Your task to perform on an android device: turn on data saver in the chrome app Image 0: 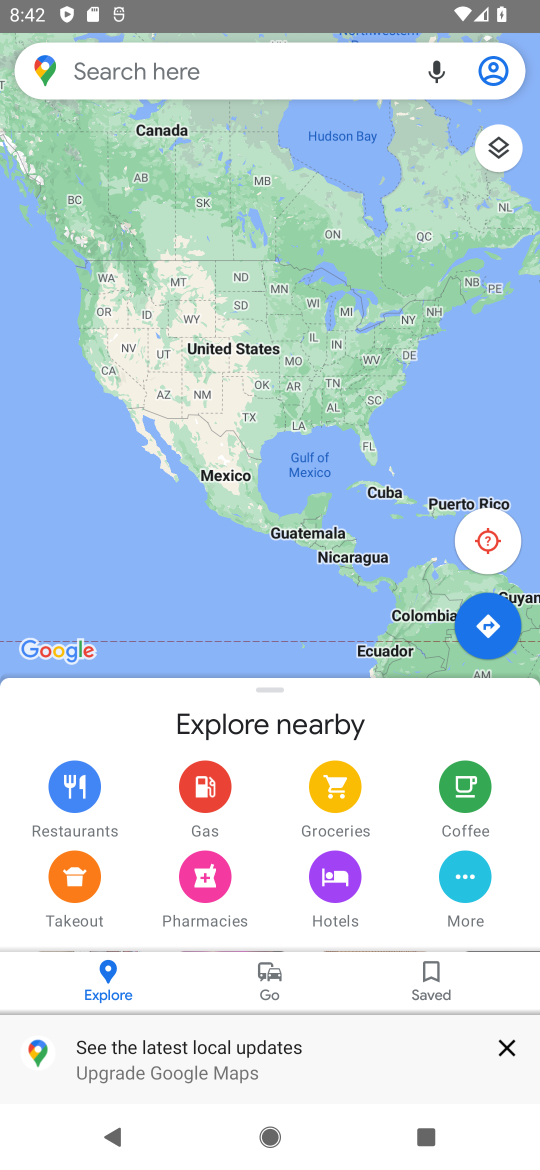
Step 0: press back button
Your task to perform on an android device: turn on data saver in the chrome app Image 1: 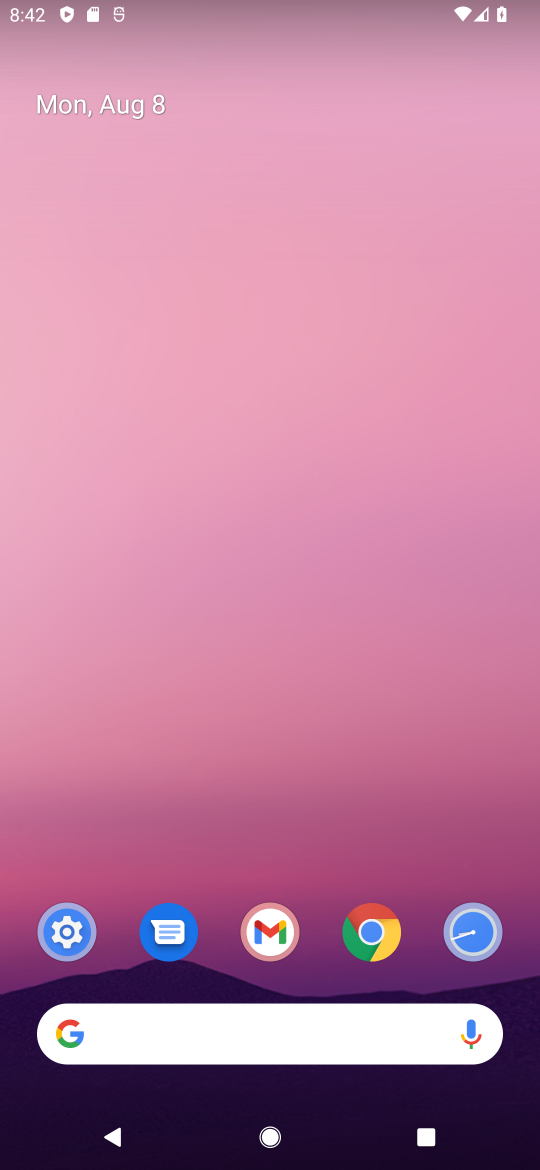
Step 1: click (379, 930)
Your task to perform on an android device: turn on data saver in the chrome app Image 2: 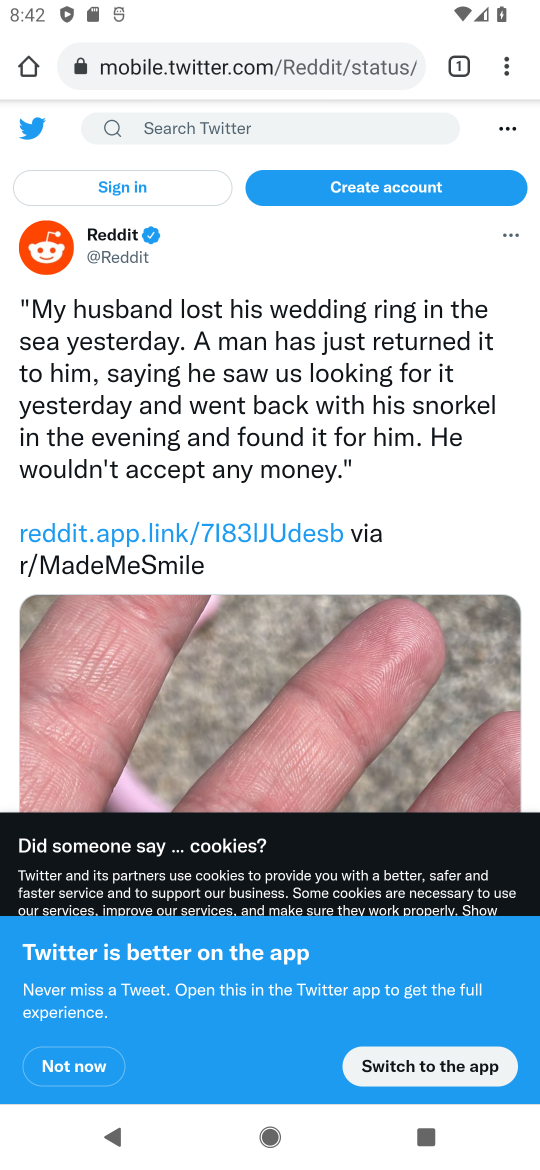
Step 2: drag from (501, 64) to (345, 876)
Your task to perform on an android device: turn on data saver in the chrome app Image 3: 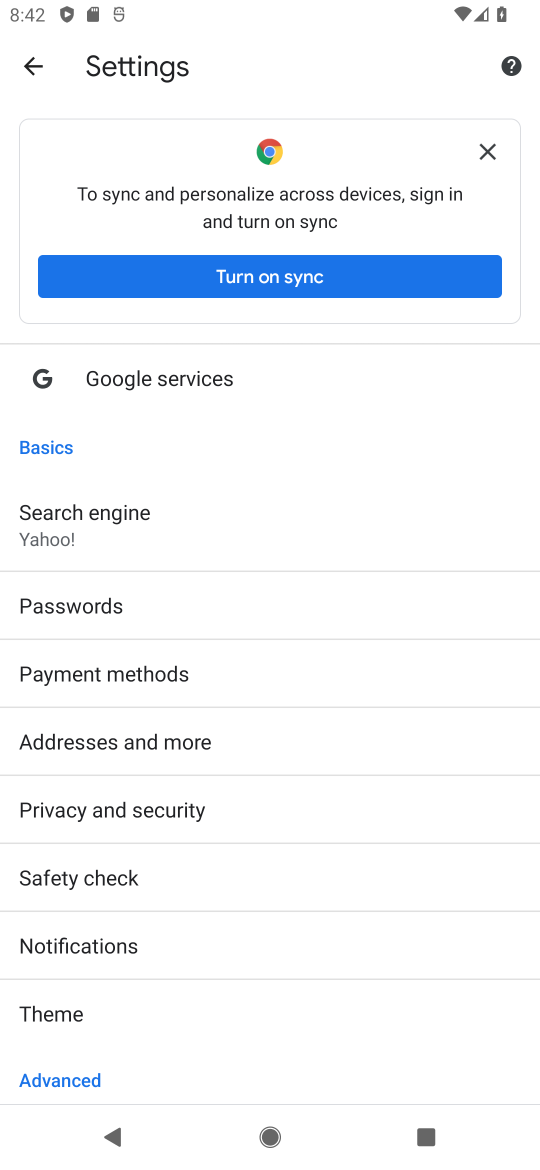
Step 3: drag from (285, 1011) to (349, 192)
Your task to perform on an android device: turn on data saver in the chrome app Image 4: 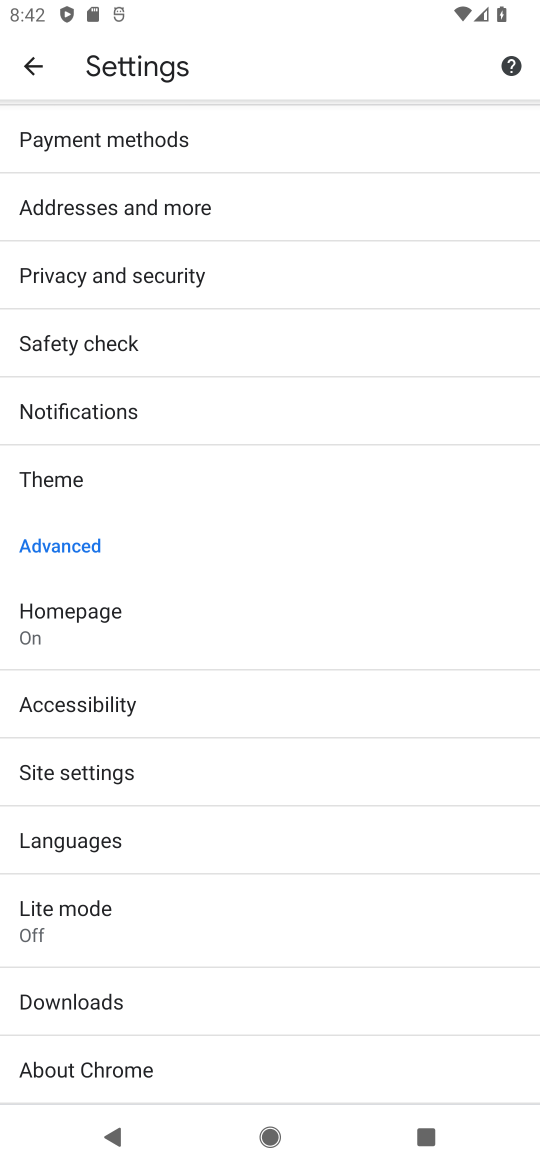
Step 4: click (84, 911)
Your task to perform on an android device: turn on data saver in the chrome app Image 5: 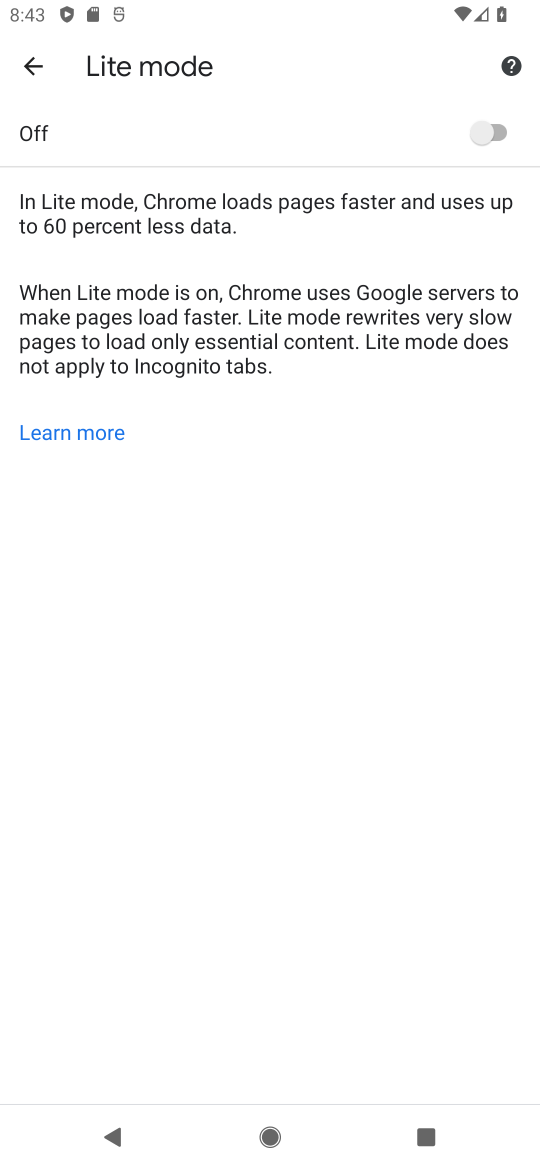
Step 5: click (497, 138)
Your task to perform on an android device: turn on data saver in the chrome app Image 6: 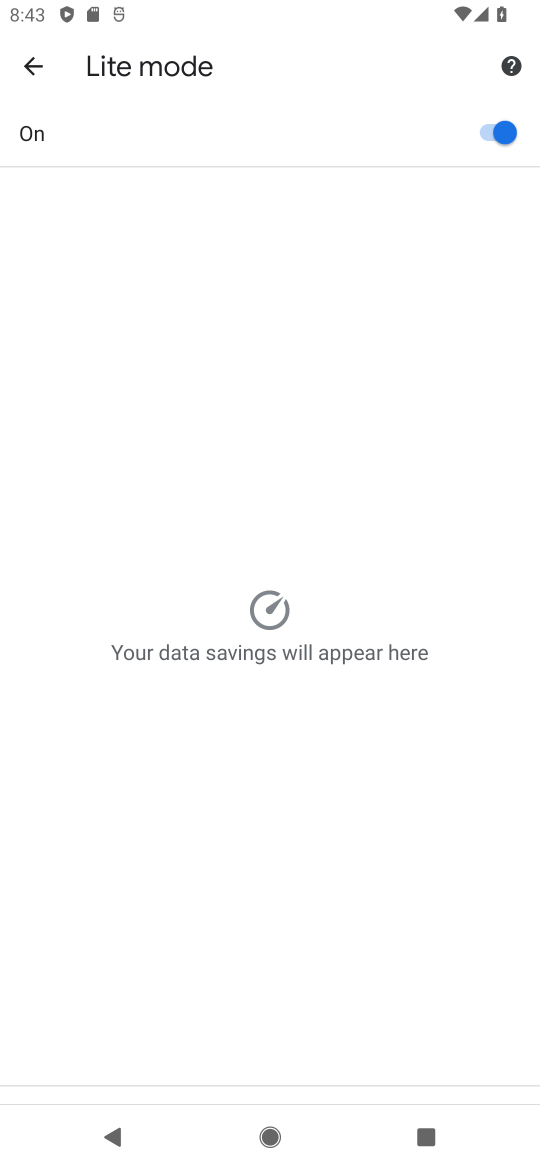
Step 6: task complete